Your task to perform on an android device: check google app version Image 0: 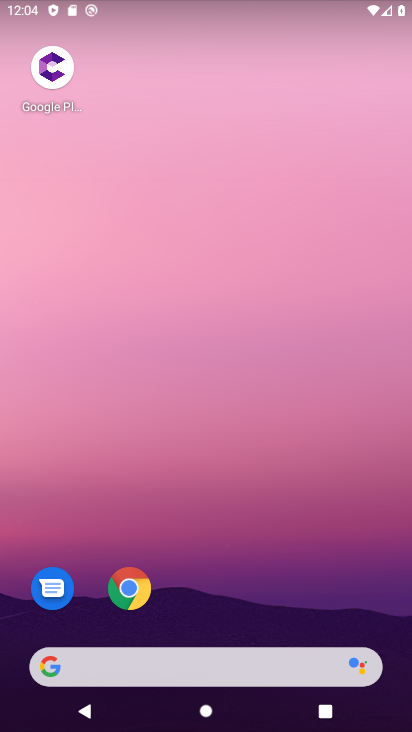
Step 0: click (138, 595)
Your task to perform on an android device: check google app version Image 1: 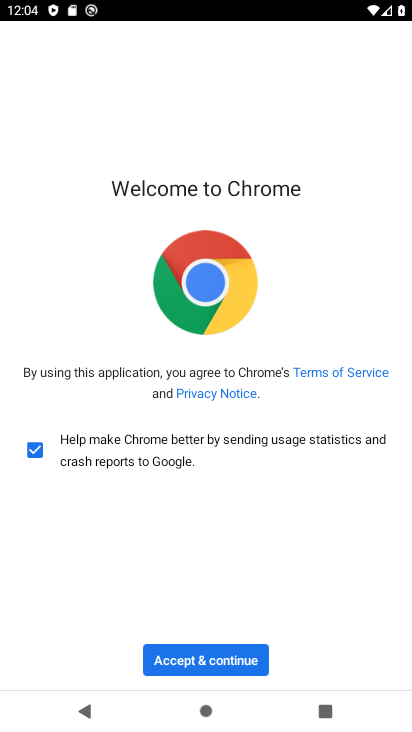
Step 1: click (214, 656)
Your task to perform on an android device: check google app version Image 2: 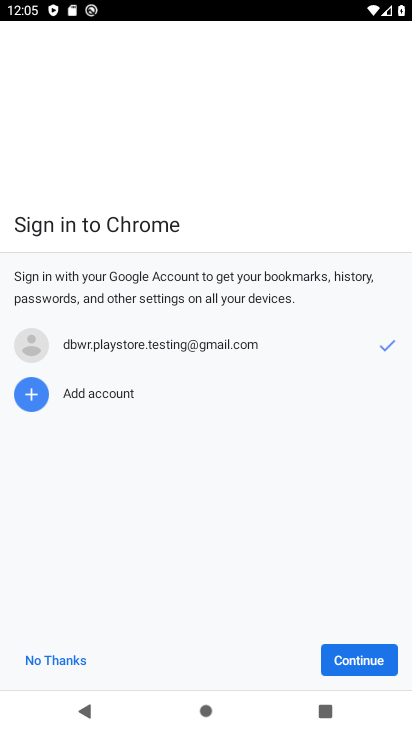
Step 2: click (382, 661)
Your task to perform on an android device: check google app version Image 3: 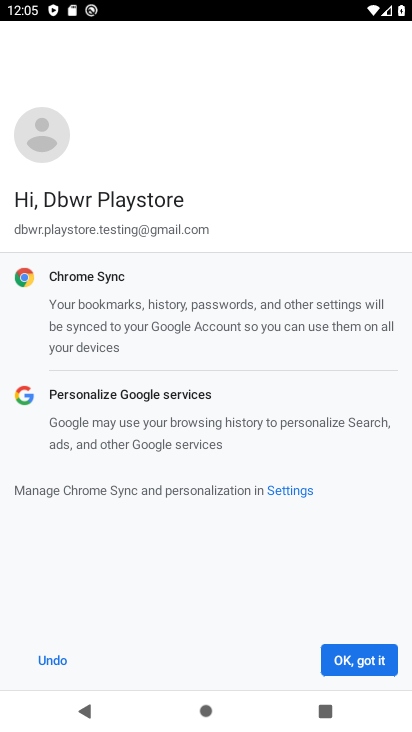
Step 3: click (382, 661)
Your task to perform on an android device: check google app version Image 4: 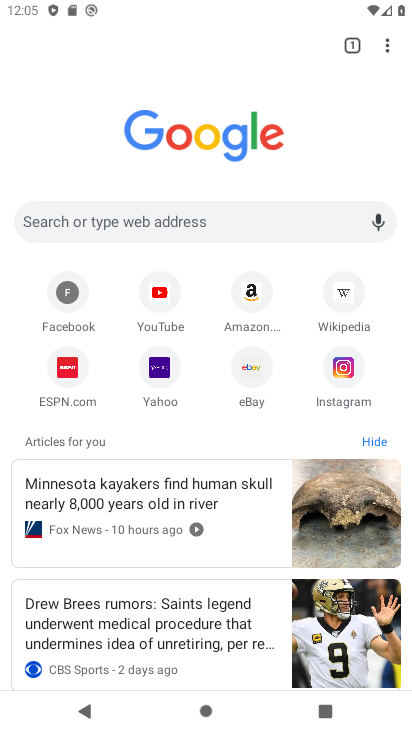
Step 4: click (386, 50)
Your task to perform on an android device: check google app version Image 5: 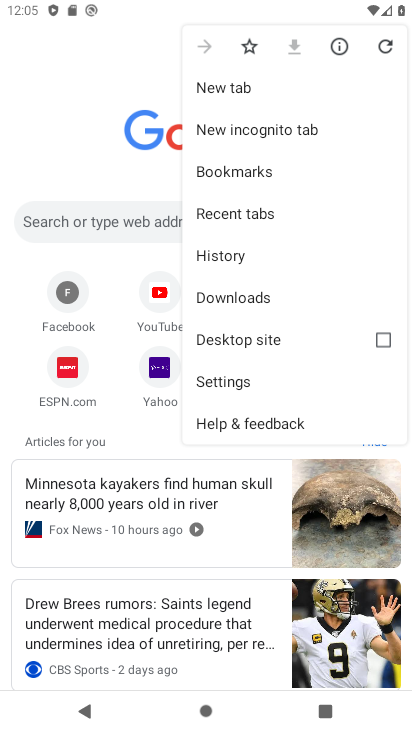
Step 5: click (315, 426)
Your task to perform on an android device: check google app version Image 6: 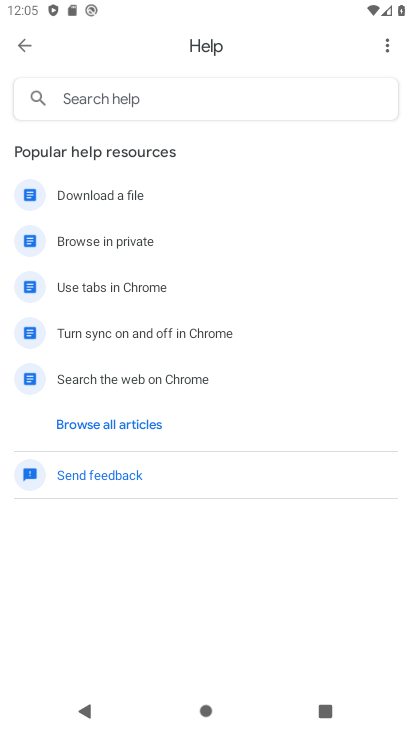
Step 6: click (386, 46)
Your task to perform on an android device: check google app version Image 7: 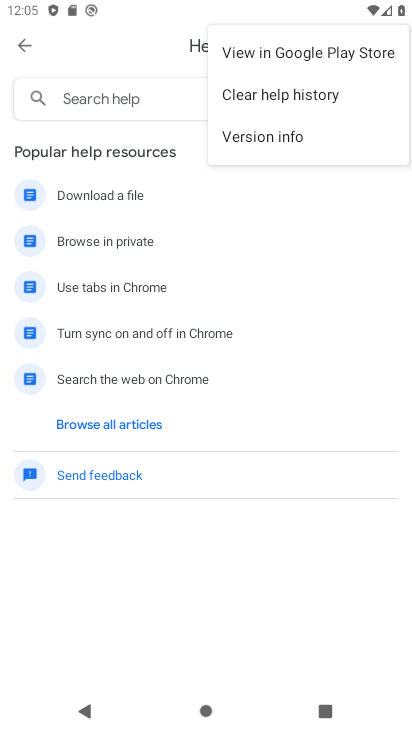
Step 7: click (313, 133)
Your task to perform on an android device: check google app version Image 8: 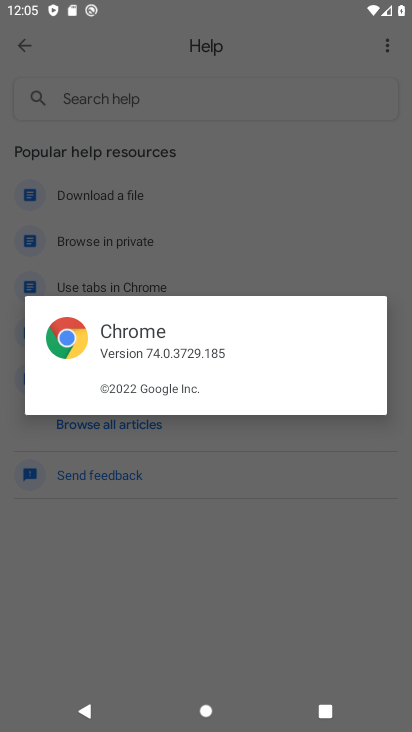
Step 8: task complete